Your task to perform on an android device: star an email in the gmail app Image 0: 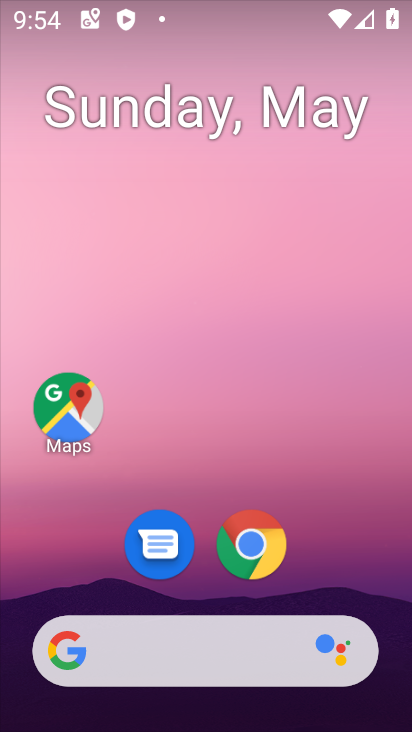
Step 0: drag from (328, 500) to (290, 77)
Your task to perform on an android device: star an email in the gmail app Image 1: 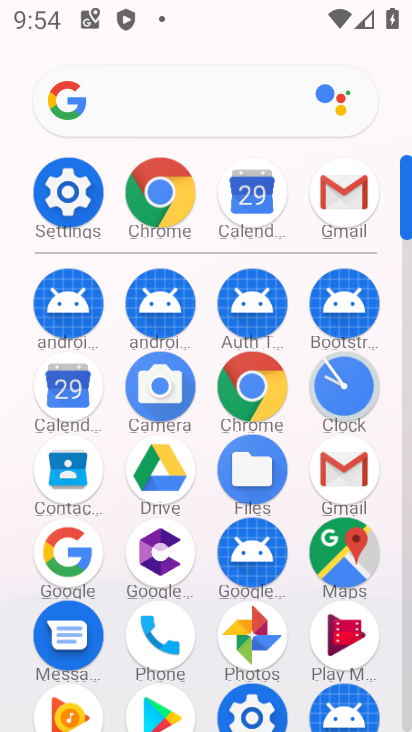
Step 1: click (342, 198)
Your task to perform on an android device: star an email in the gmail app Image 2: 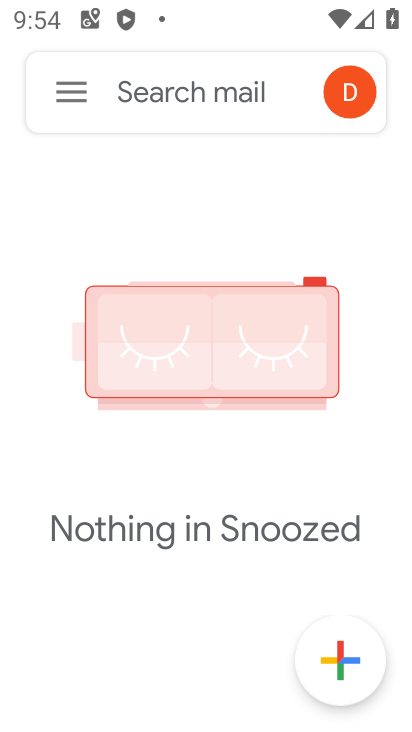
Step 2: click (52, 88)
Your task to perform on an android device: star an email in the gmail app Image 3: 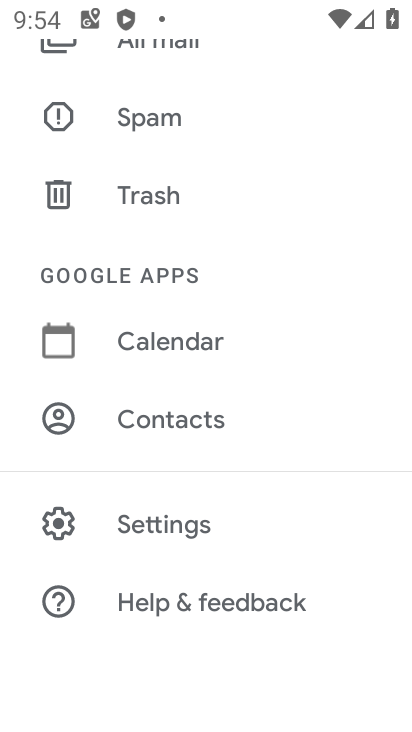
Step 3: drag from (91, 175) to (172, 612)
Your task to perform on an android device: star an email in the gmail app Image 4: 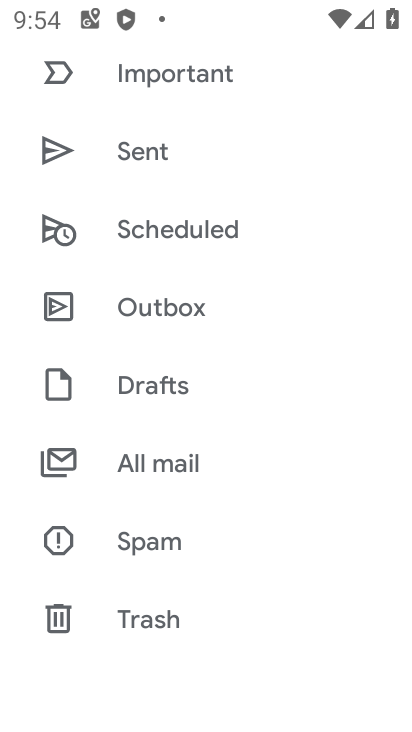
Step 4: drag from (196, 199) to (240, 619)
Your task to perform on an android device: star an email in the gmail app Image 5: 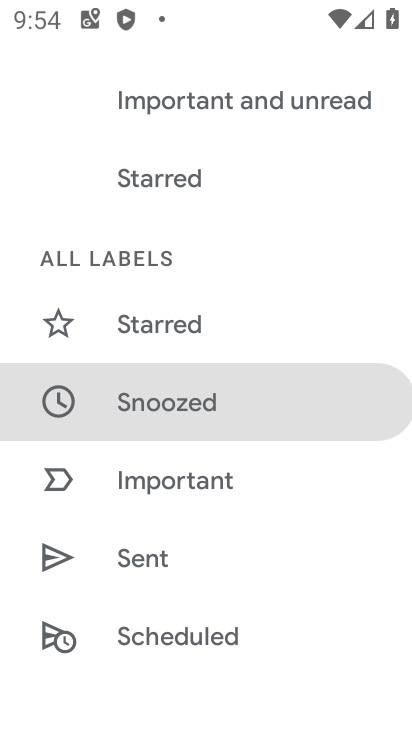
Step 5: drag from (213, 129) to (284, 697)
Your task to perform on an android device: star an email in the gmail app Image 6: 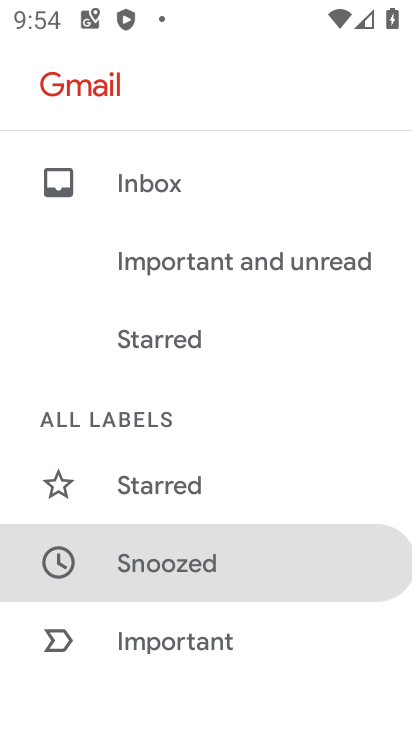
Step 6: click (139, 169)
Your task to perform on an android device: star an email in the gmail app Image 7: 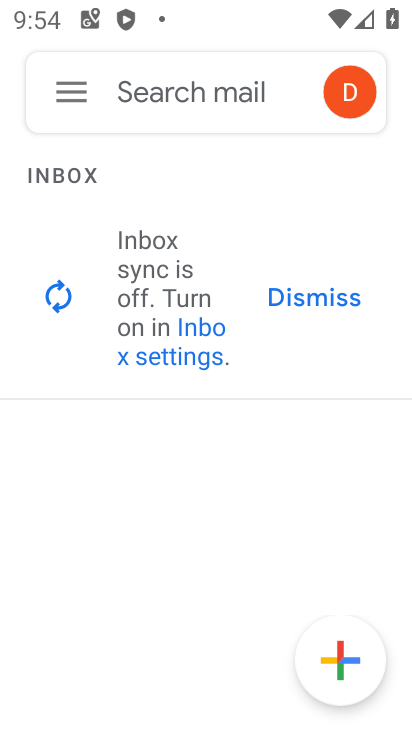
Step 7: task complete